Your task to perform on an android device: find which apps use the phone's location Image 0: 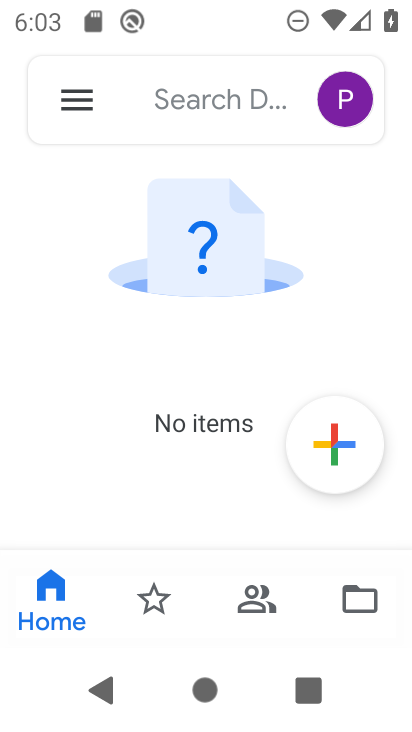
Step 0: press home button
Your task to perform on an android device: find which apps use the phone's location Image 1: 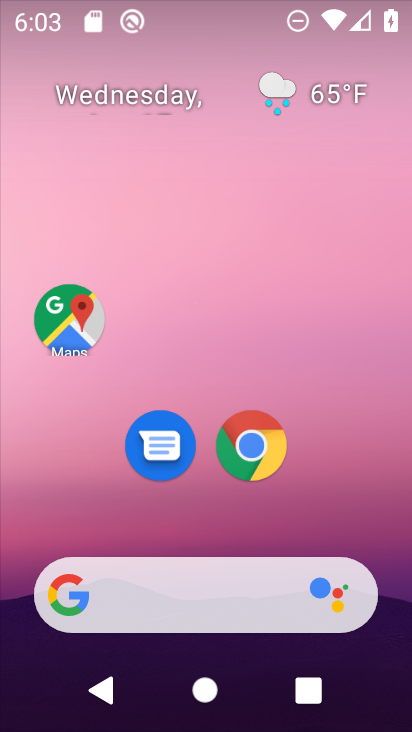
Step 1: drag from (197, 507) to (199, 101)
Your task to perform on an android device: find which apps use the phone's location Image 2: 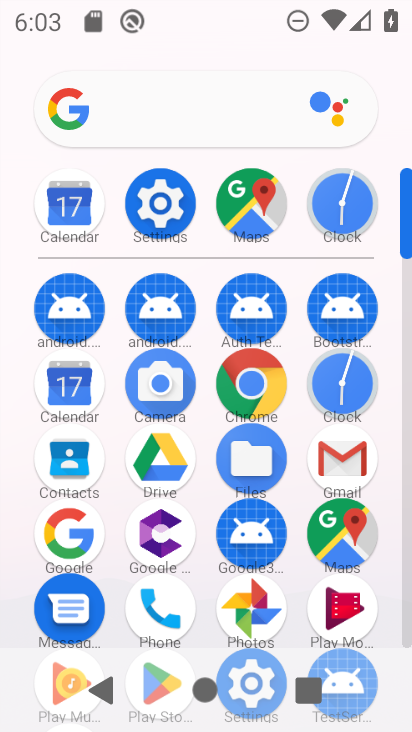
Step 2: click (152, 219)
Your task to perform on an android device: find which apps use the phone's location Image 3: 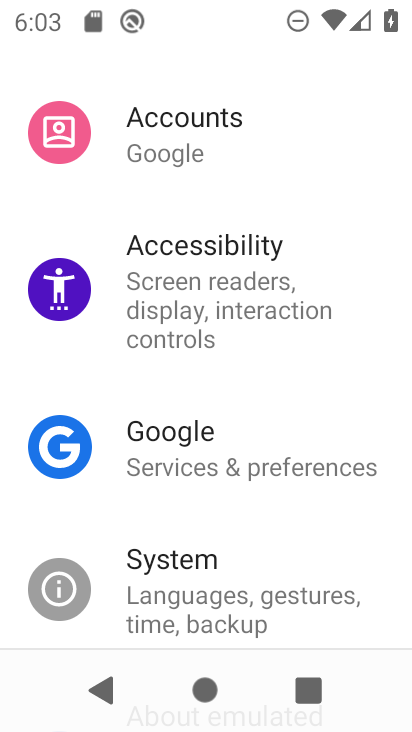
Step 3: drag from (197, 542) to (213, 147)
Your task to perform on an android device: find which apps use the phone's location Image 4: 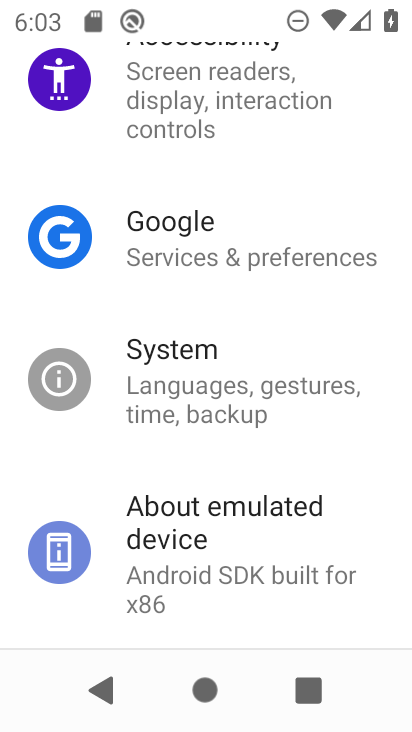
Step 4: drag from (258, 549) to (257, 159)
Your task to perform on an android device: find which apps use the phone's location Image 5: 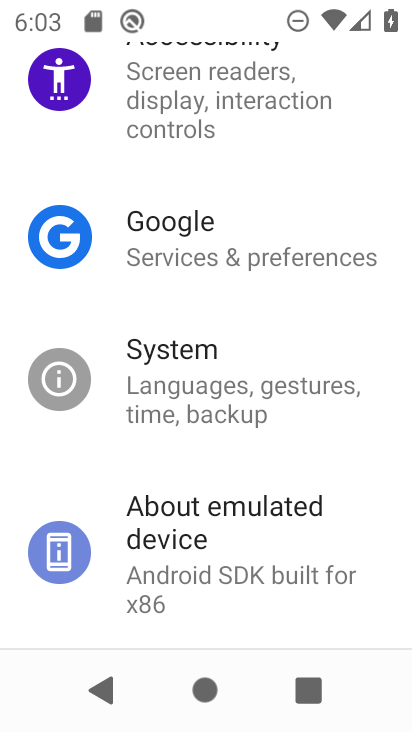
Step 5: drag from (236, 182) to (231, 547)
Your task to perform on an android device: find which apps use the phone's location Image 6: 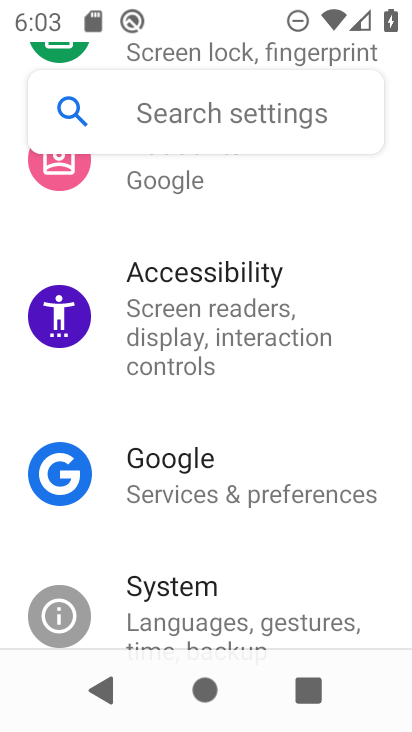
Step 6: drag from (214, 164) to (224, 483)
Your task to perform on an android device: find which apps use the phone's location Image 7: 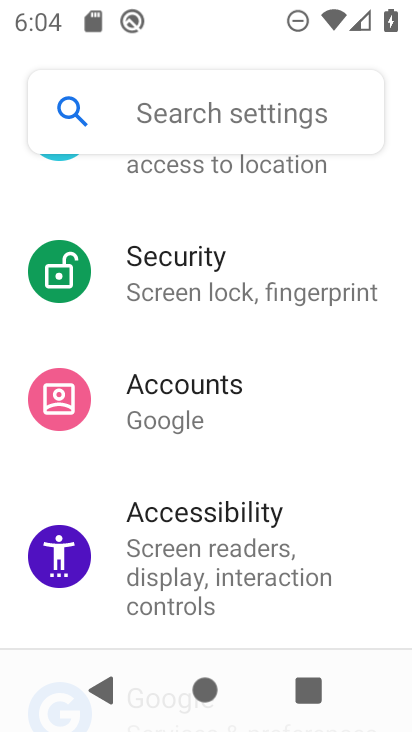
Step 7: drag from (209, 252) to (223, 583)
Your task to perform on an android device: find which apps use the phone's location Image 8: 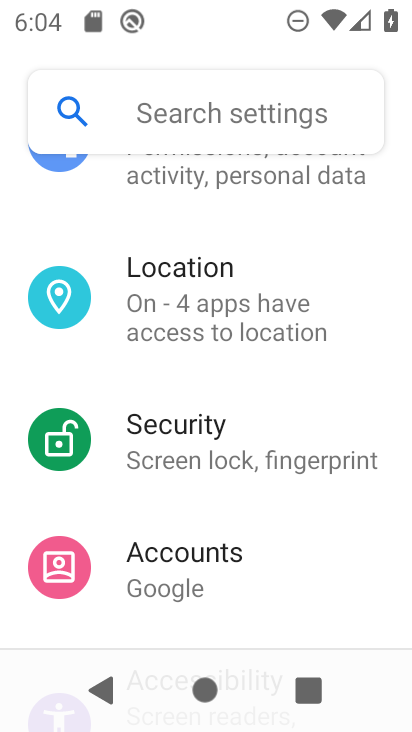
Step 8: click (240, 268)
Your task to perform on an android device: find which apps use the phone's location Image 9: 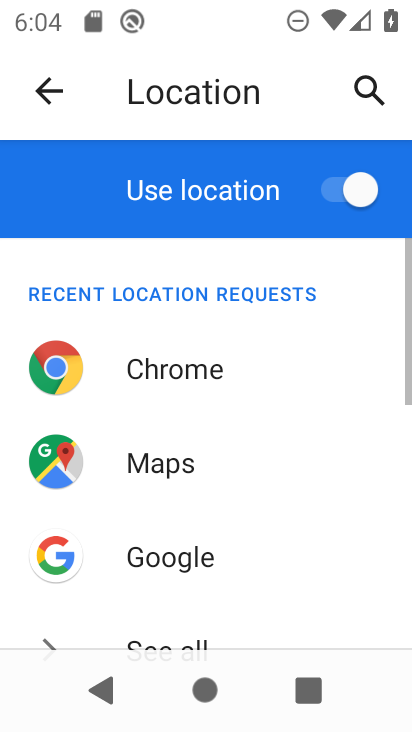
Step 9: drag from (223, 494) to (216, 118)
Your task to perform on an android device: find which apps use the phone's location Image 10: 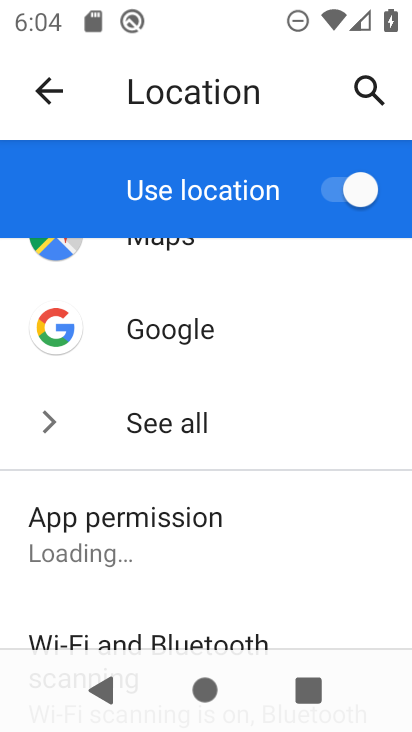
Step 10: click (167, 529)
Your task to perform on an android device: find which apps use the phone's location Image 11: 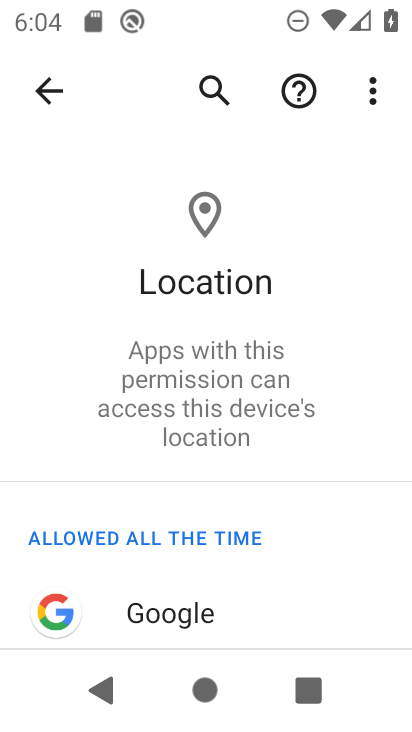
Step 11: task complete